Your task to perform on an android device: open a bookmark in the chrome app Image 0: 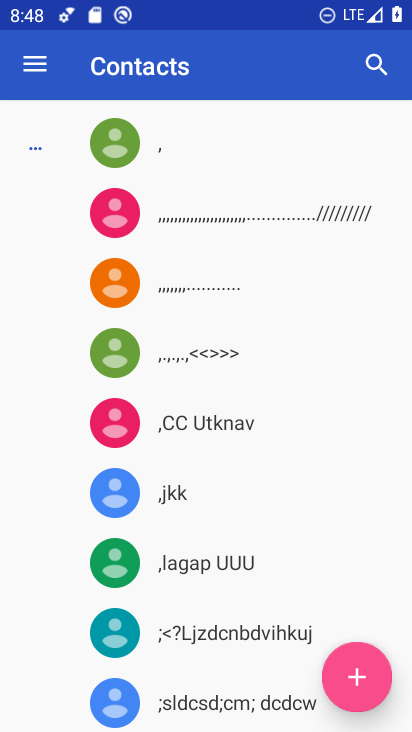
Step 0: press home button
Your task to perform on an android device: open a bookmark in the chrome app Image 1: 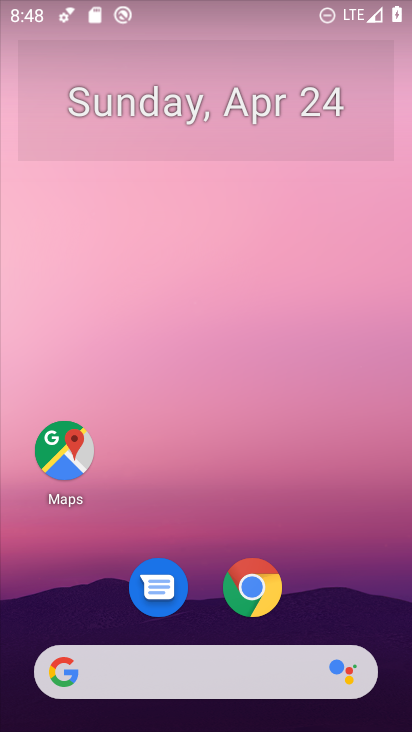
Step 1: drag from (362, 573) to (340, 121)
Your task to perform on an android device: open a bookmark in the chrome app Image 2: 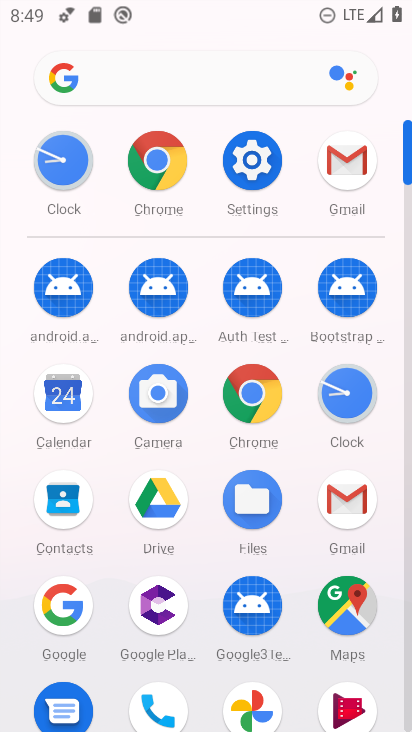
Step 2: click (261, 398)
Your task to perform on an android device: open a bookmark in the chrome app Image 3: 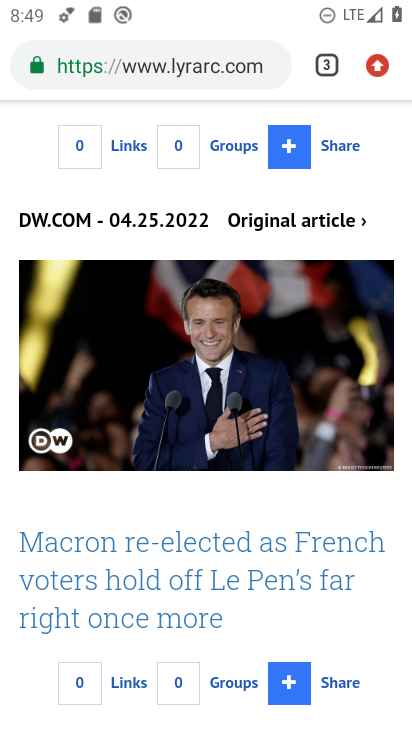
Step 3: task complete